Your task to perform on an android device: change alarm snooze length Image 0: 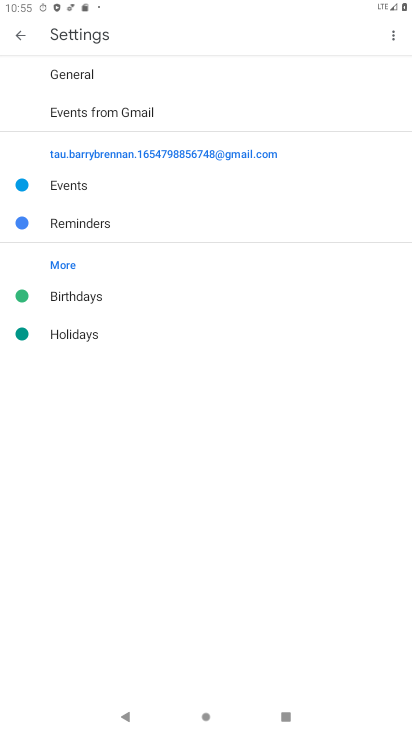
Step 0: click (17, 29)
Your task to perform on an android device: change alarm snooze length Image 1: 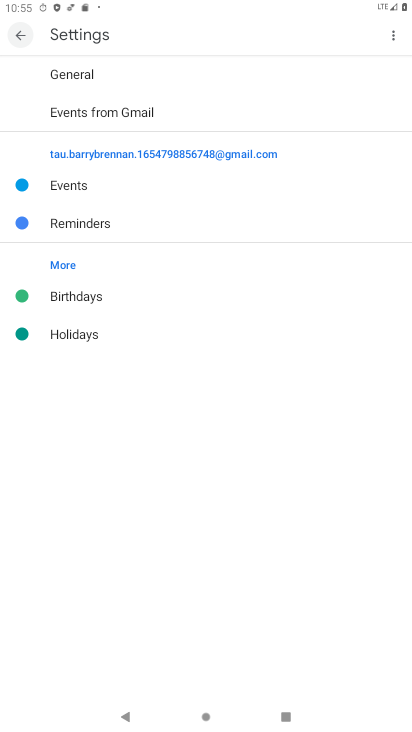
Step 1: click (7, 49)
Your task to perform on an android device: change alarm snooze length Image 2: 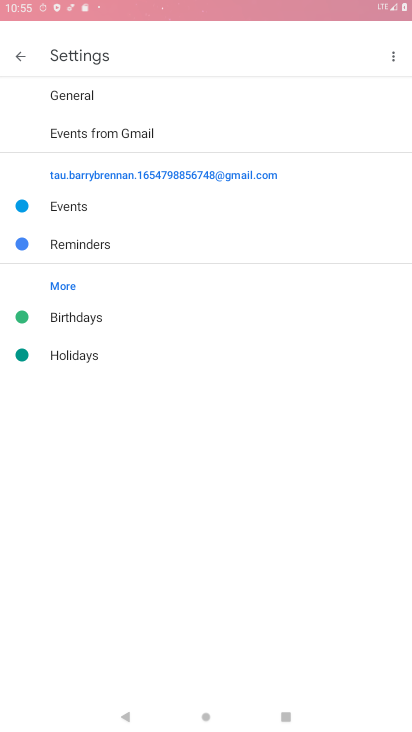
Step 2: click (7, 49)
Your task to perform on an android device: change alarm snooze length Image 3: 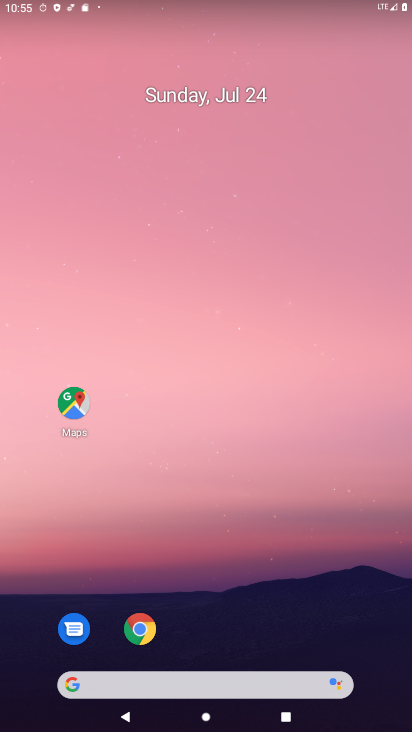
Step 3: drag from (195, 608) to (54, 80)
Your task to perform on an android device: change alarm snooze length Image 4: 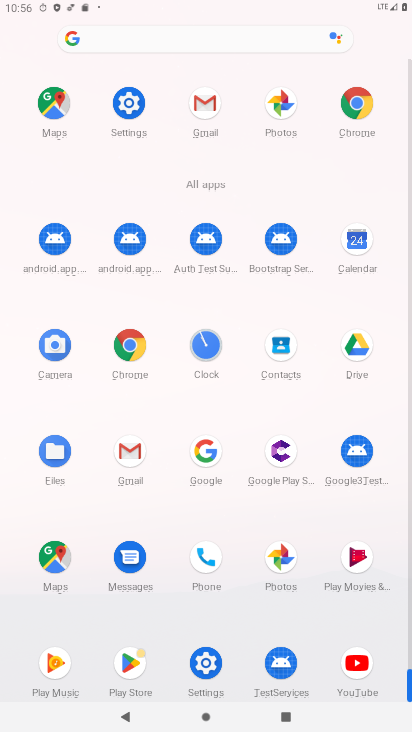
Step 4: click (213, 344)
Your task to perform on an android device: change alarm snooze length Image 5: 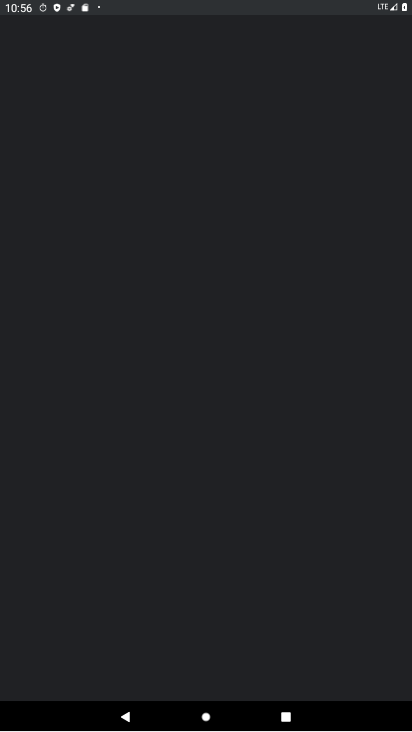
Step 5: click (209, 346)
Your task to perform on an android device: change alarm snooze length Image 6: 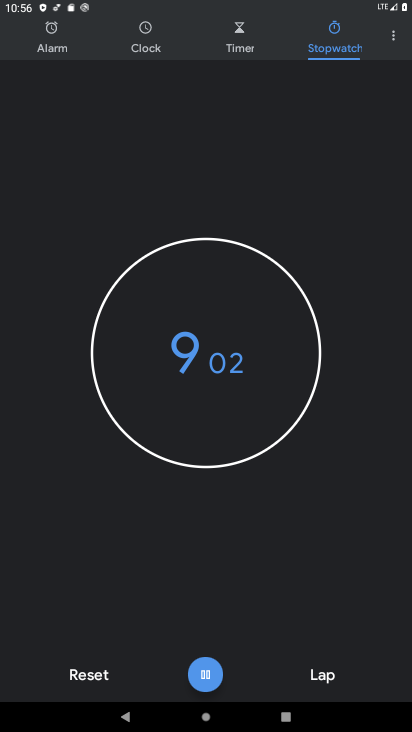
Step 6: click (208, 671)
Your task to perform on an android device: change alarm snooze length Image 7: 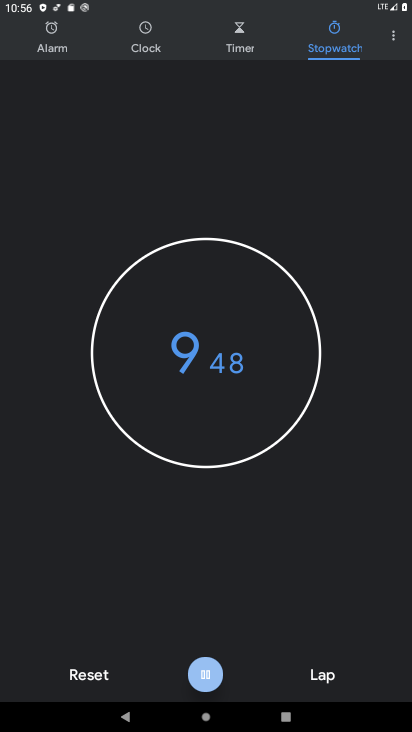
Step 7: click (393, 41)
Your task to perform on an android device: change alarm snooze length Image 8: 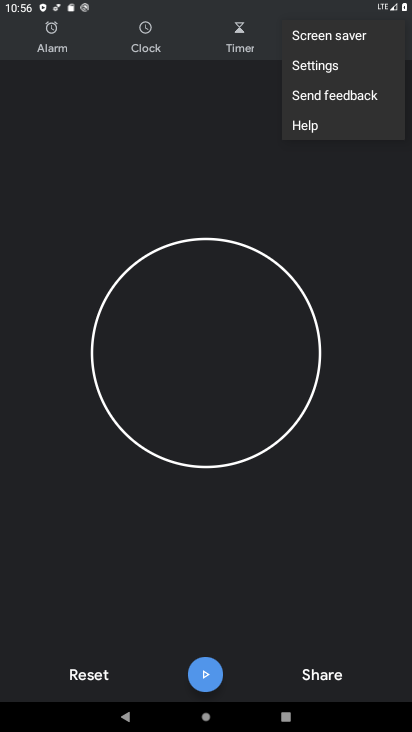
Step 8: click (308, 63)
Your task to perform on an android device: change alarm snooze length Image 9: 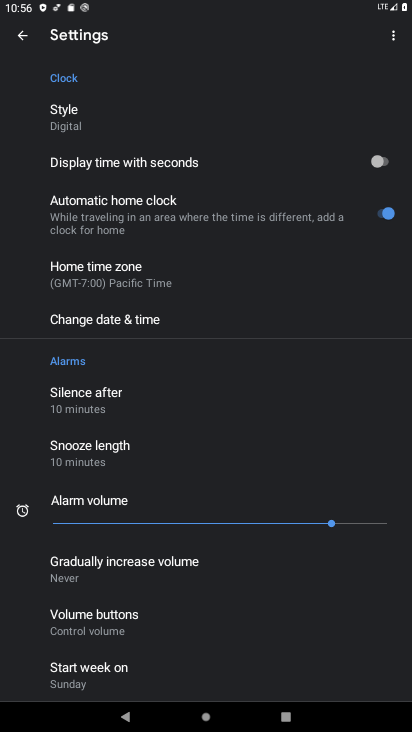
Step 9: click (87, 463)
Your task to perform on an android device: change alarm snooze length Image 10: 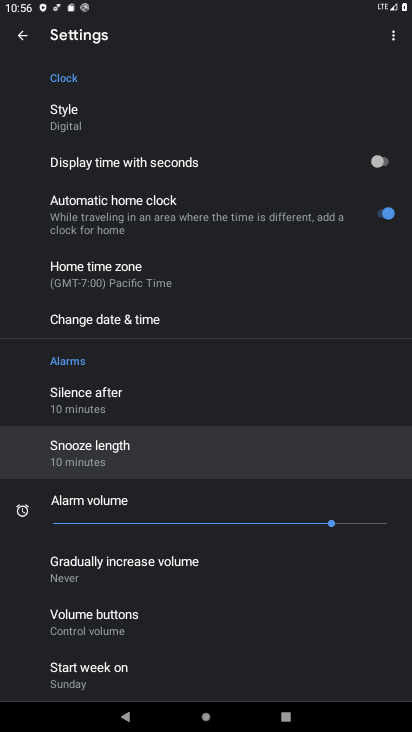
Step 10: click (91, 466)
Your task to perform on an android device: change alarm snooze length Image 11: 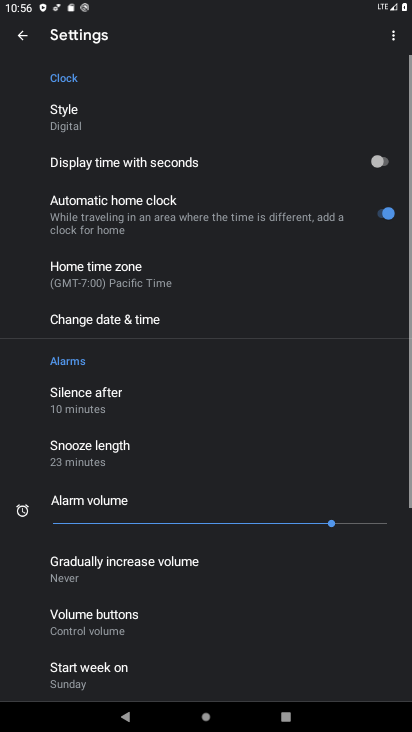
Step 11: click (74, 451)
Your task to perform on an android device: change alarm snooze length Image 12: 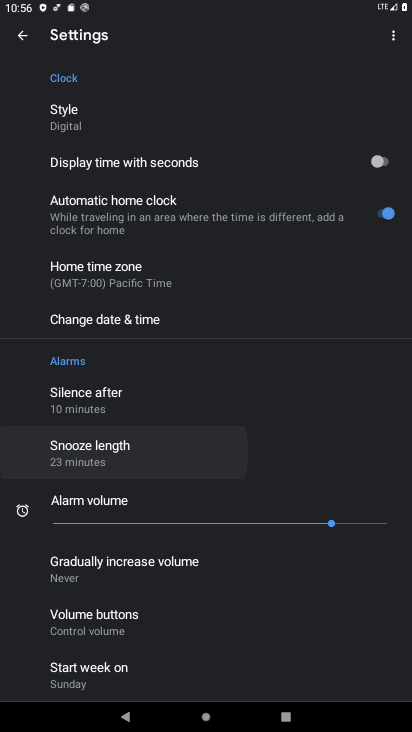
Step 12: click (79, 458)
Your task to perform on an android device: change alarm snooze length Image 13: 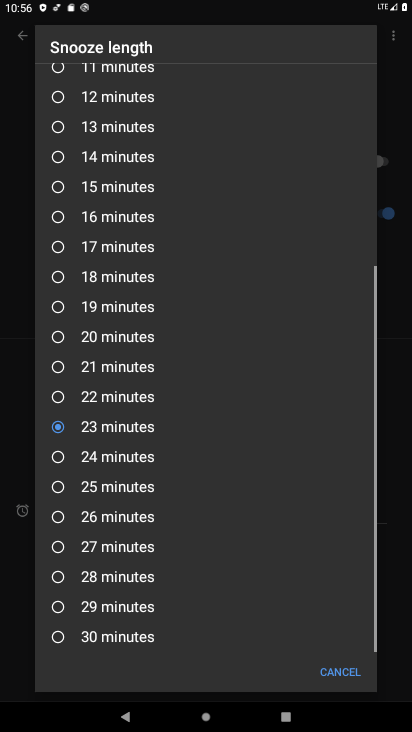
Step 13: click (53, 463)
Your task to perform on an android device: change alarm snooze length Image 14: 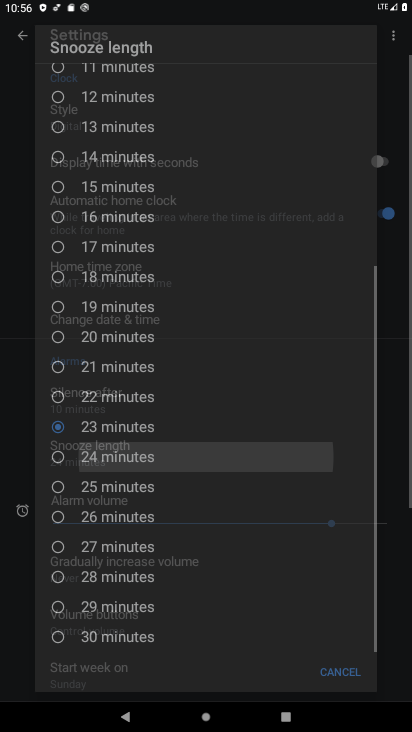
Step 14: click (67, 467)
Your task to perform on an android device: change alarm snooze length Image 15: 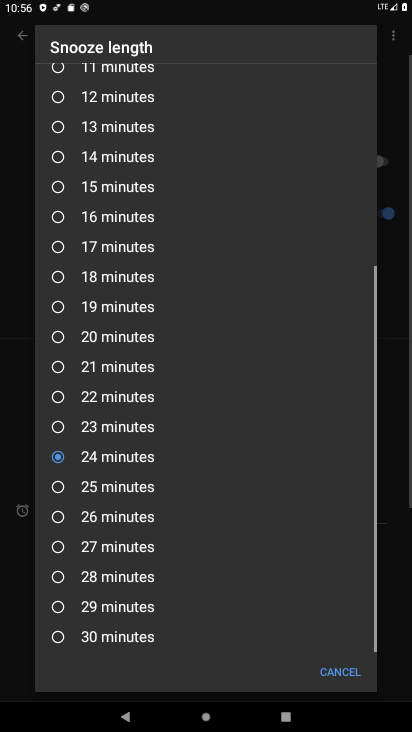
Step 15: task complete